Your task to perform on an android device: turn off sleep mode Image 0: 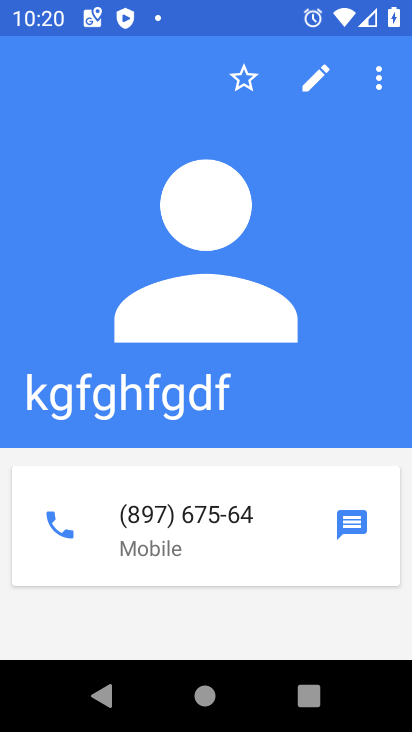
Step 0: press home button
Your task to perform on an android device: turn off sleep mode Image 1: 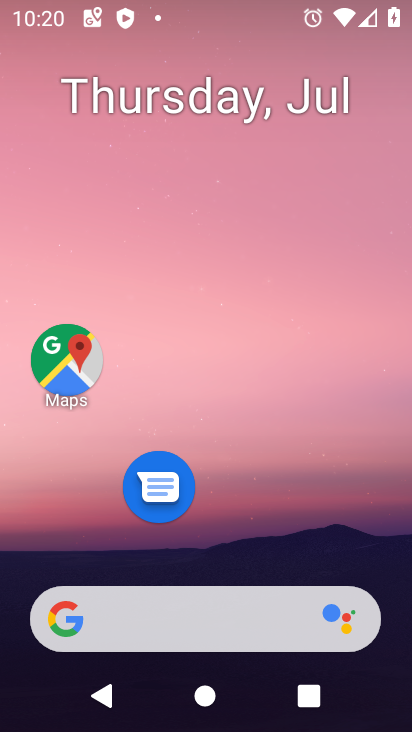
Step 1: drag from (231, 648) to (310, 98)
Your task to perform on an android device: turn off sleep mode Image 2: 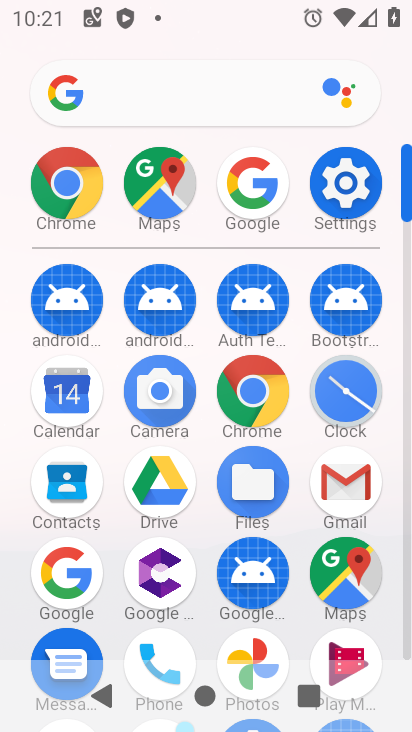
Step 2: click (351, 197)
Your task to perform on an android device: turn off sleep mode Image 3: 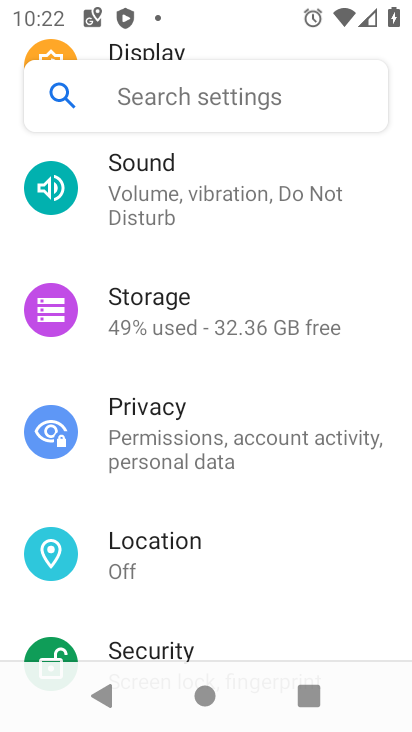
Step 3: drag from (201, 368) to (147, 594)
Your task to perform on an android device: turn off sleep mode Image 4: 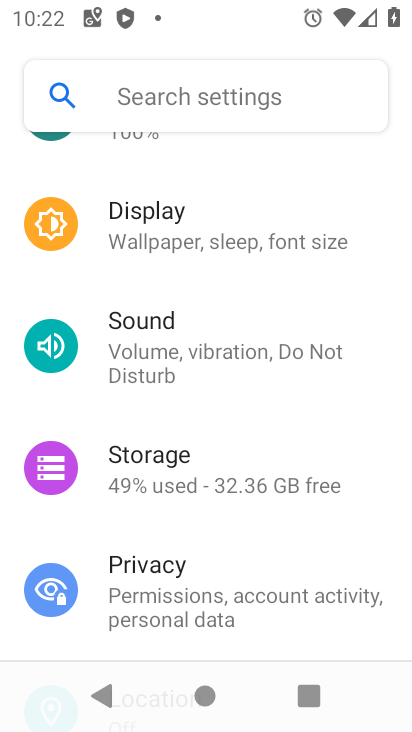
Step 4: drag from (245, 402) to (198, 627)
Your task to perform on an android device: turn off sleep mode Image 5: 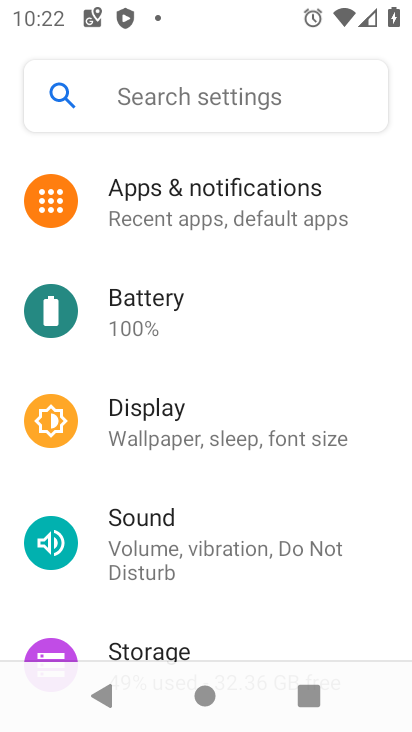
Step 5: drag from (141, 575) to (159, 208)
Your task to perform on an android device: turn off sleep mode Image 6: 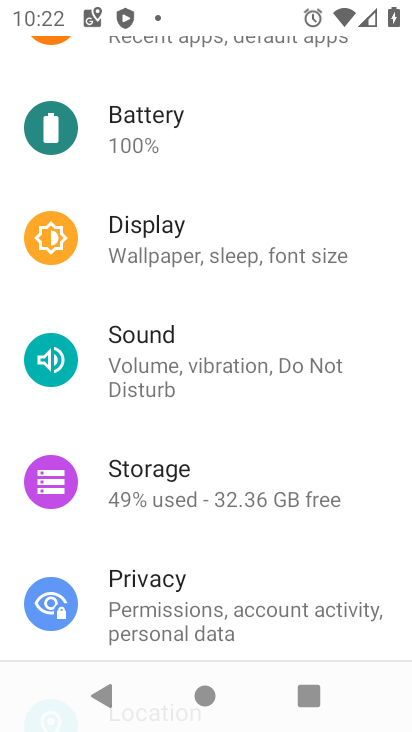
Step 6: click (207, 250)
Your task to perform on an android device: turn off sleep mode Image 7: 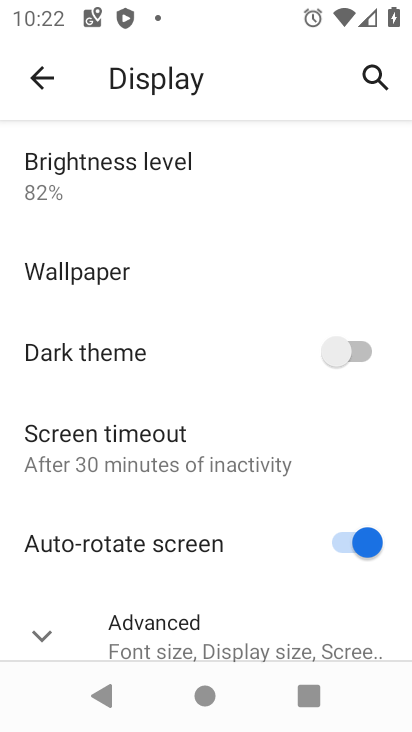
Step 7: click (131, 632)
Your task to perform on an android device: turn off sleep mode Image 8: 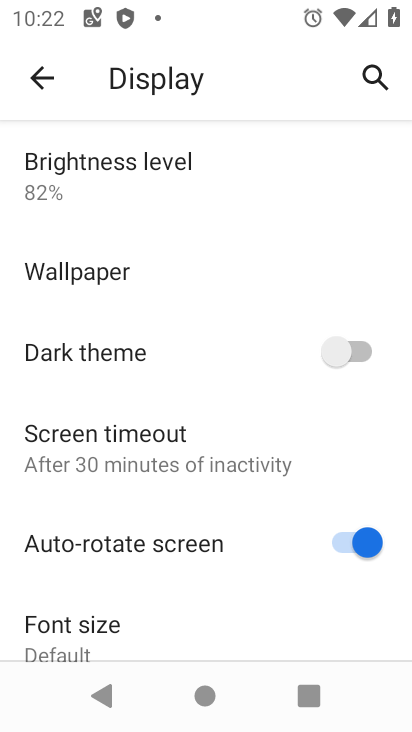
Step 8: task complete